Your task to perform on an android device: allow cookies in the chrome app Image 0: 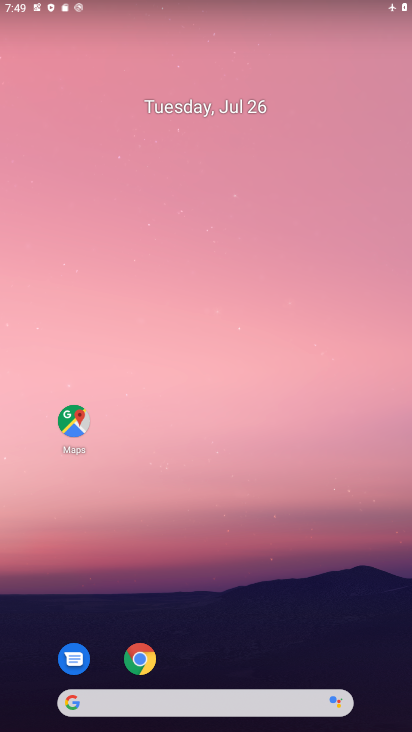
Step 0: drag from (193, 680) to (192, 165)
Your task to perform on an android device: allow cookies in the chrome app Image 1: 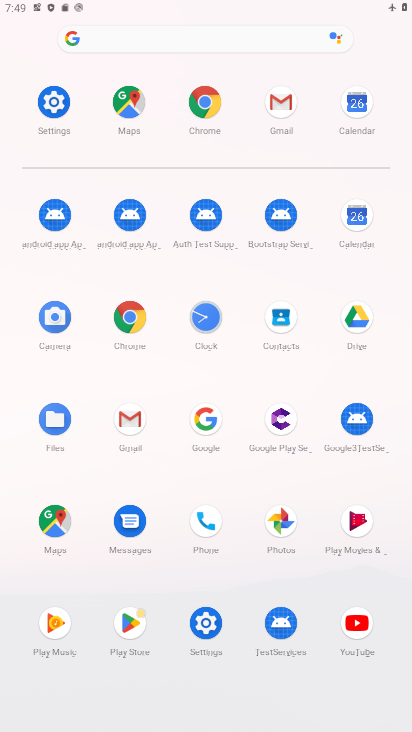
Step 1: click (132, 328)
Your task to perform on an android device: allow cookies in the chrome app Image 2: 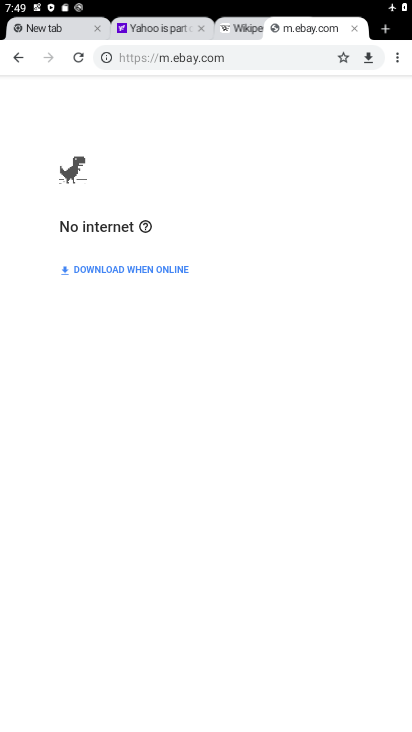
Step 2: click (394, 58)
Your task to perform on an android device: allow cookies in the chrome app Image 3: 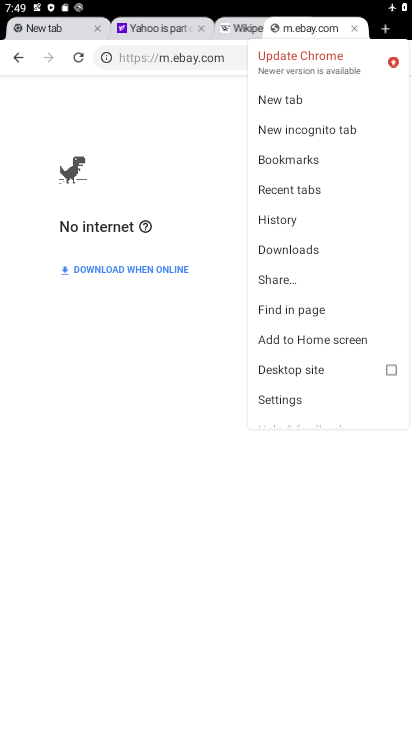
Step 3: click (275, 390)
Your task to perform on an android device: allow cookies in the chrome app Image 4: 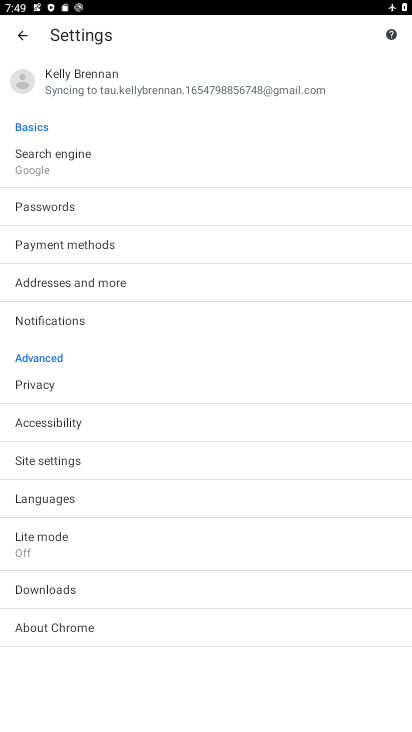
Step 4: click (54, 464)
Your task to perform on an android device: allow cookies in the chrome app Image 5: 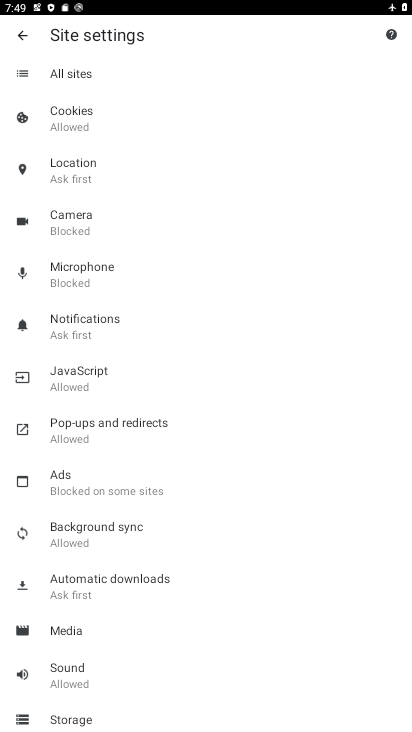
Step 5: click (58, 126)
Your task to perform on an android device: allow cookies in the chrome app Image 6: 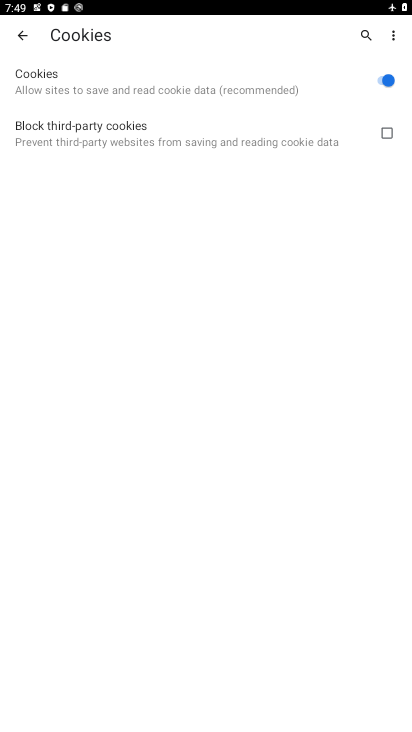
Step 6: task complete